Your task to perform on an android device: toggle priority inbox in the gmail app Image 0: 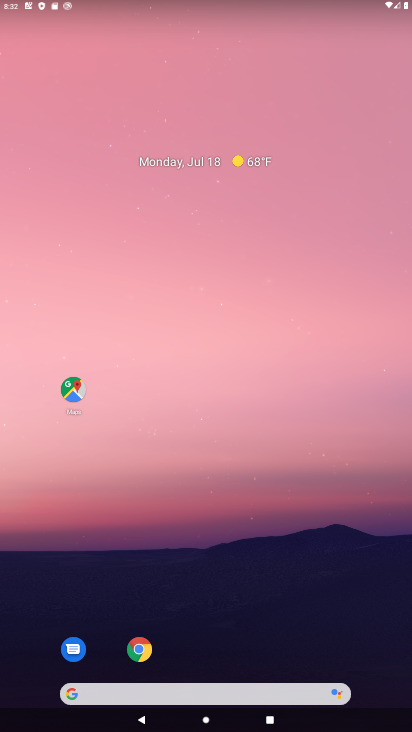
Step 0: drag from (90, 708) to (72, 233)
Your task to perform on an android device: toggle priority inbox in the gmail app Image 1: 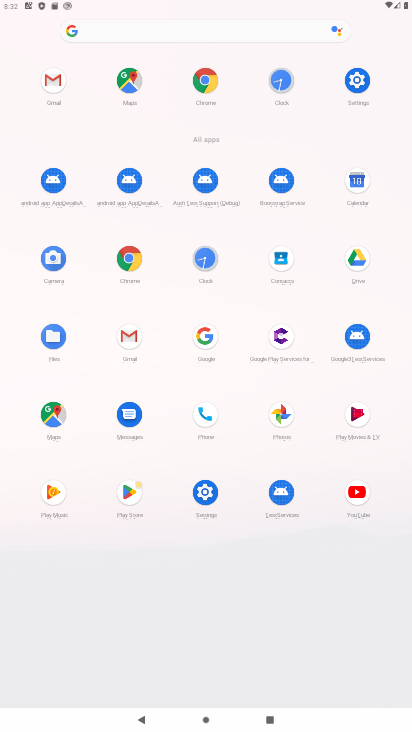
Step 1: click (52, 80)
Your task to perform on an android device: toggle priority inbox in the gmail app Image 2: 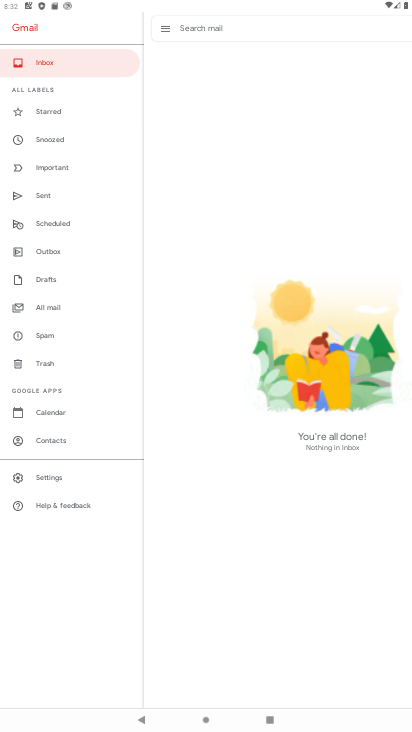
Step 2: click (56, 473)
Your task to perform on an android device: toggle priority inbox in the gmail app Image 3: 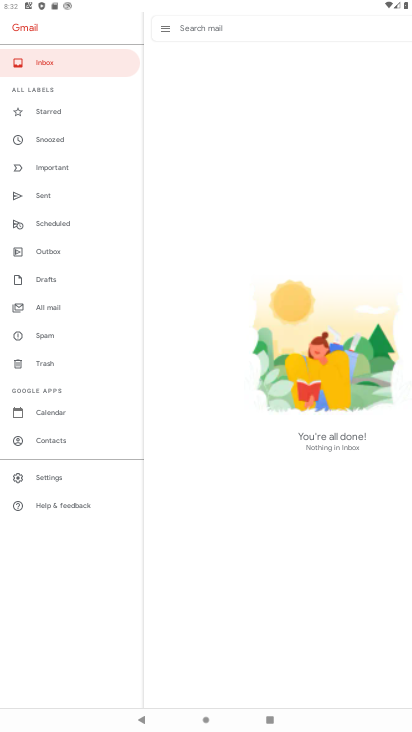
Step 3: click (56, 473)
Your task to perform on an android device: toggle priority inbox in the gmail app Image 4: 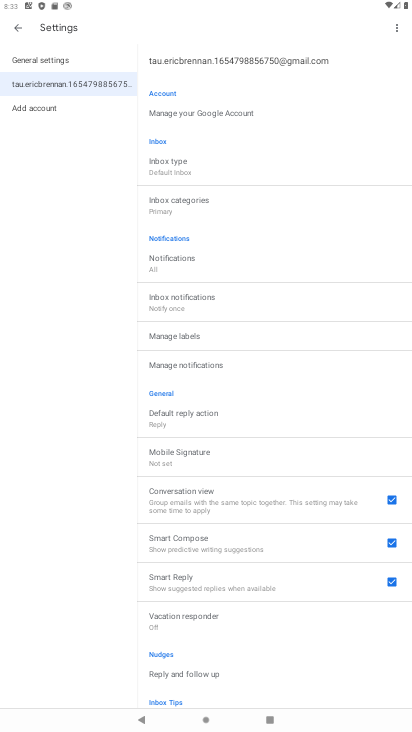
Step 4: click (204, 169)
Your task to perform on an android device: toggle priority inbox in the gmail app Image 5: 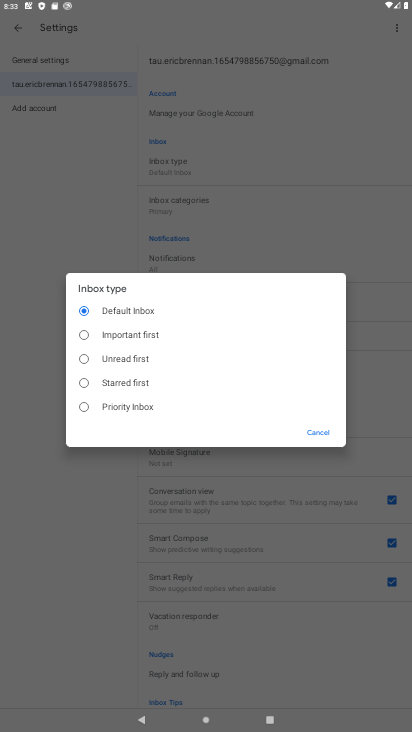
Step 5: click (124, 411)
Your task to perform on an android device: toggle priority inbox in the gmail app Image 6: 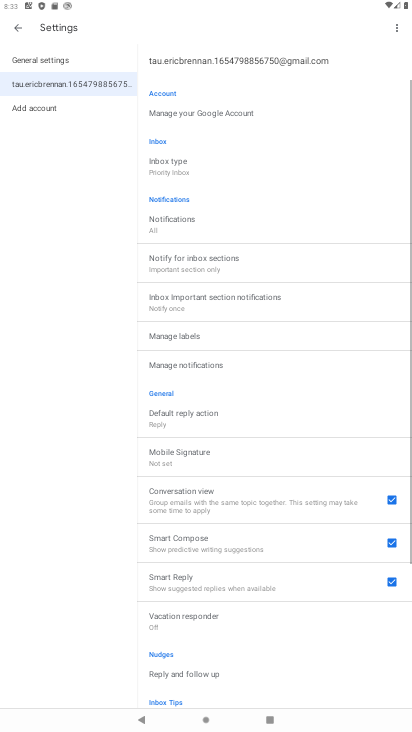
Step 6: task complete